Your task to perform on an android device: turn on translation in the chrome app Image 0: 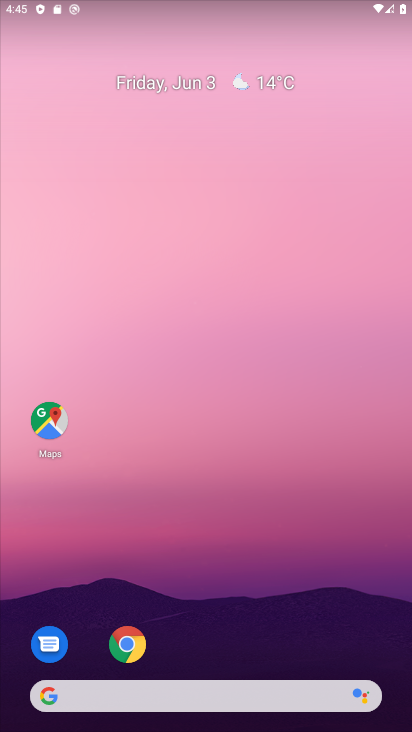
Step 0: click (133, 641)
Your task to perform on an android device: turn on translation in the chrome app Image 1: 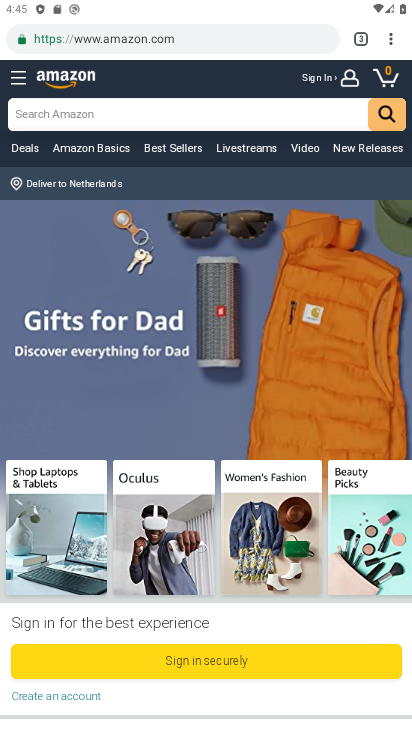
Step 1: click (396, 31)
Your task to perform on an android device: turn on translation in the chrome app Image 2: 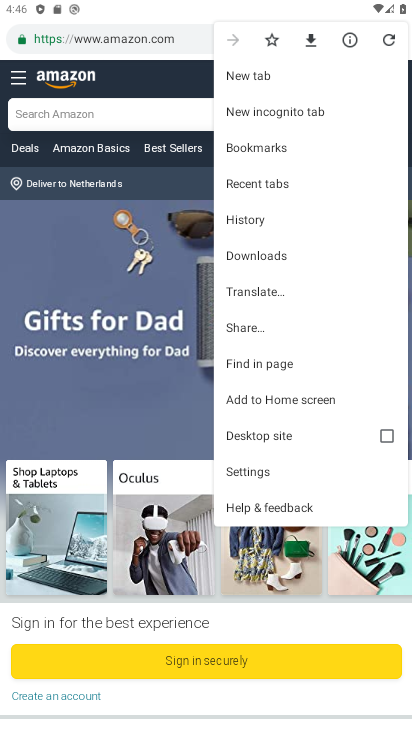
Step 2: click (268, 481)
Your task to perform on an android device: turn on translation in the chrome app Image 3: 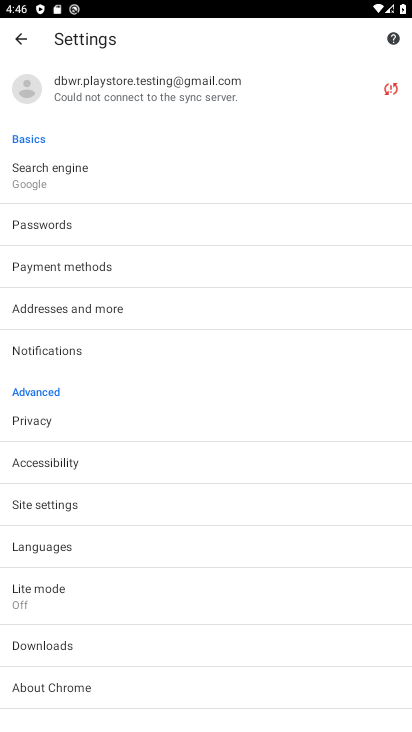
Step 3: click (99, 535)
Your task to perform on an android device: turn on translation in the chrome app Image 4: 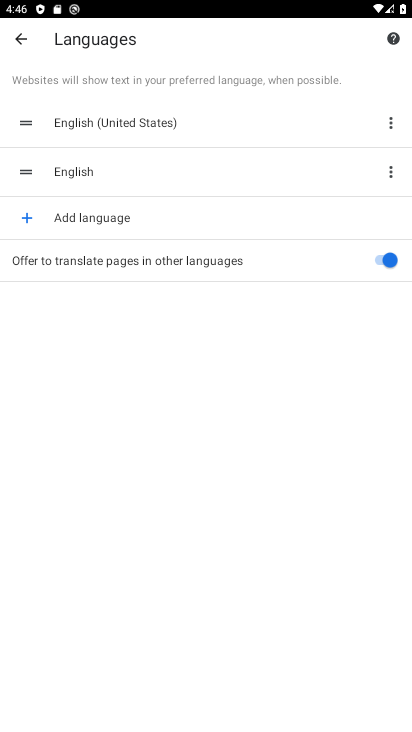
Step 4: task complete